Your task to perform on an android device: Clear the shopping cart on target.com. Search for razer naga on target.com, select the first entry, add it to the cart, then select checkout. Image 0: 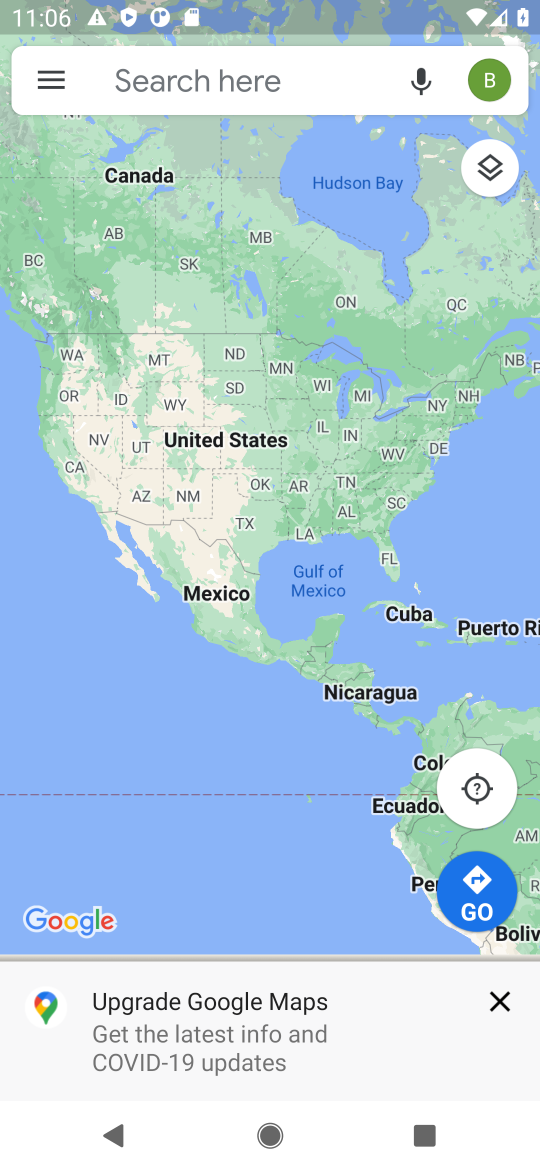
Step 0: press home button
Your task to perform on an android device: Clear the shopping cart on target.com. Search for razer naga on target.com, select the first entry, add it to the cart, then select checkout. Image 1: 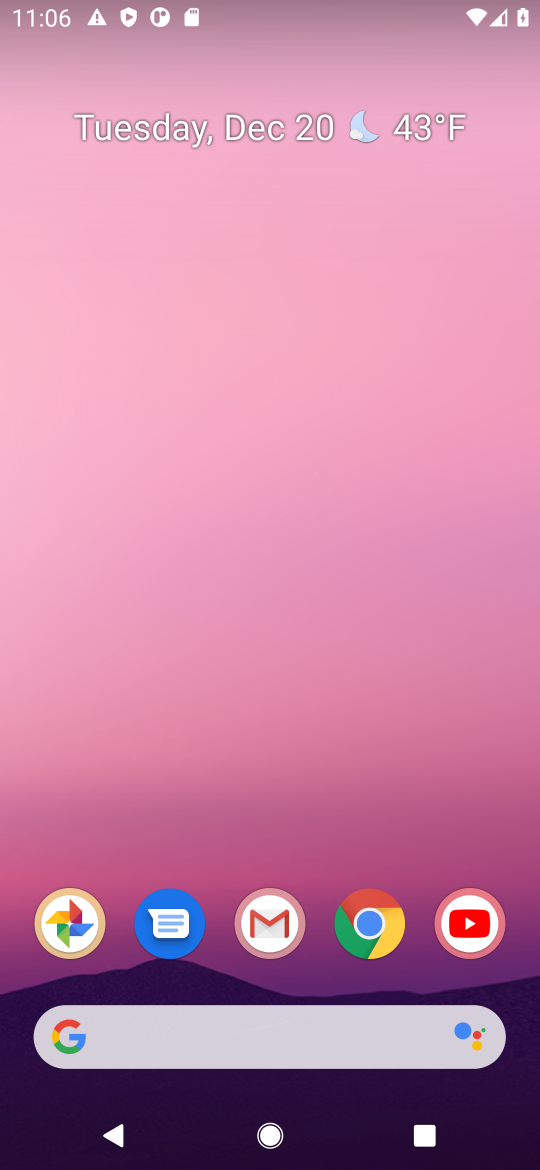
Step 1: click (380, 929)
Your task to perform on an android device: Clear the shopping cart on target.com. Search for razer naga on target.com, select the first entry, add it to the cart, then select checkout. Image 2: 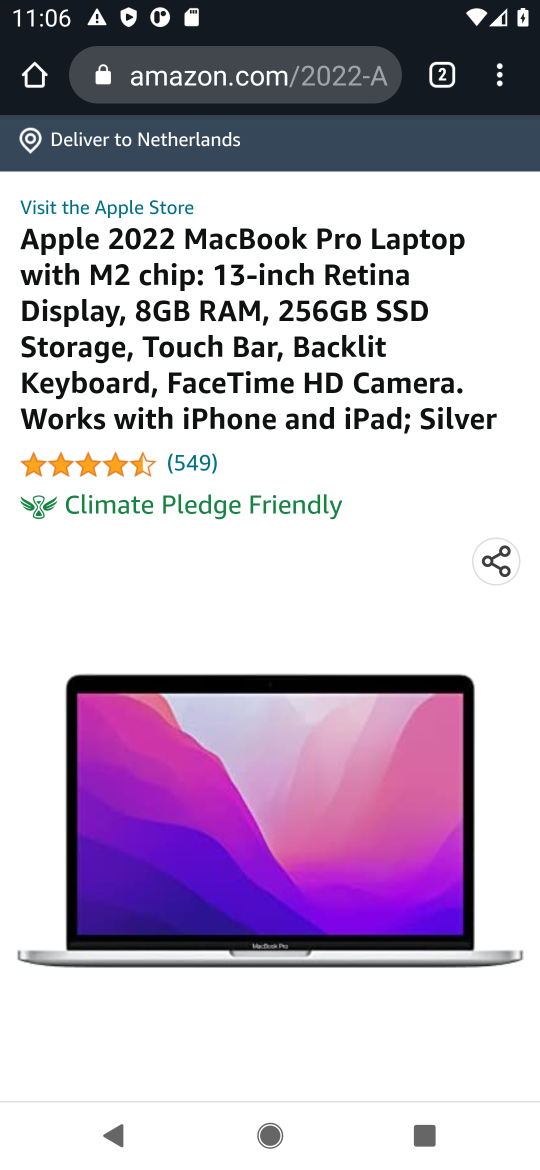
Step 2: click (334, 100)
Your task to perform on an android device: Clear the shopping cart on target.com. Search for razer naga on target.com, select the first entry, add it to the cart, then select checkout. Image 3: 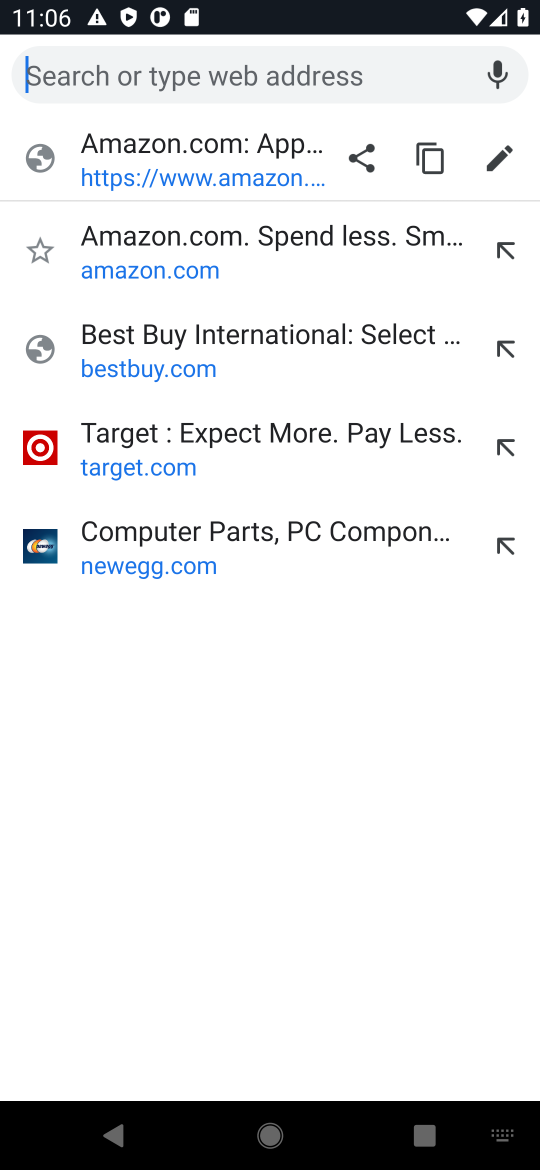
Step 3: type "target"
Your task to perform on an android device: Clear the shopping cart on target.com. Search for razer naga on target.com, select the first entry, add it to the cart, then select checkout. Image 4: 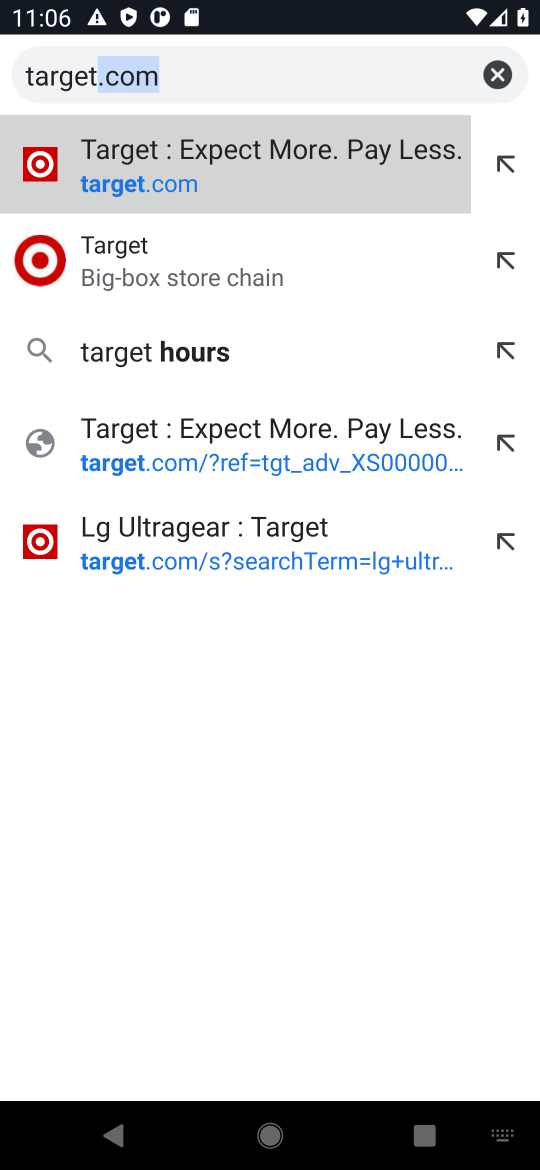
Step 4: click (159, 198)
Your task to perform on an android device: Clear the shopping cart on target.com. Search for razer naga on target.com, select the first entry, add it to the cart, then select checkout. Image 5: 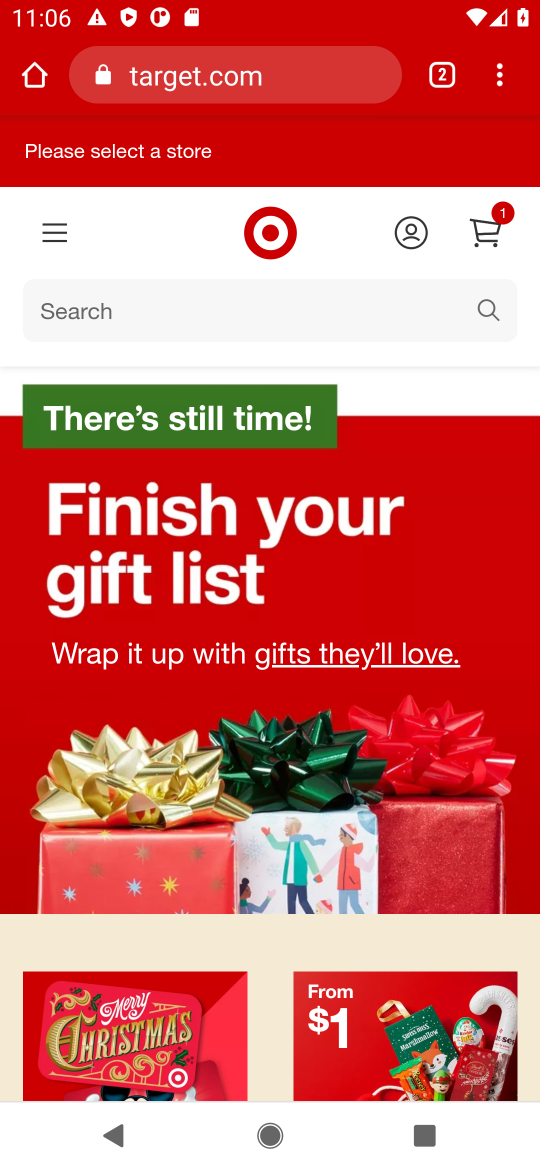
Step 5: click (223, 305)
Your task to perform on an android device: Clear the shopping cart on target.com. Search for razer naga on target.com, select the first entry, add it to the cart, then select checkout. Image 6: 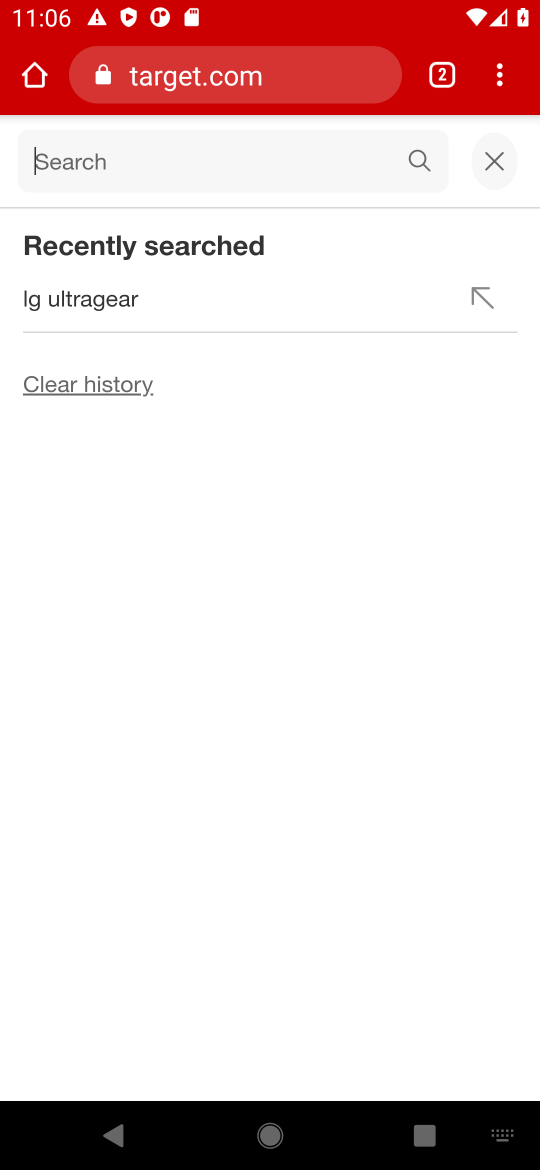
Step 6: type "razer naga"
Your task to perform on an android device: Clear the shopping cart on target.com. Search for razer naga on target.com, select the first entry, add it to the cart, then select checkout. Image 7: 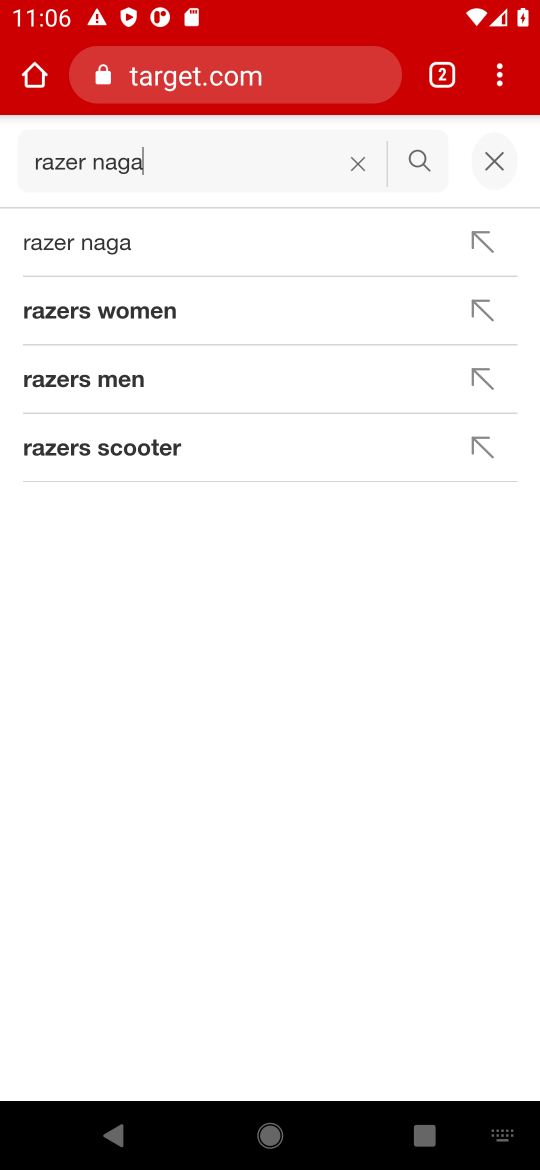
Step 7: click (257, 249)
Your task to perform on an android device: Clear the shopping cart on target.com. Search for razer naga on target.com, select the first entry, add it to the cart, then select checkout. Image 8: 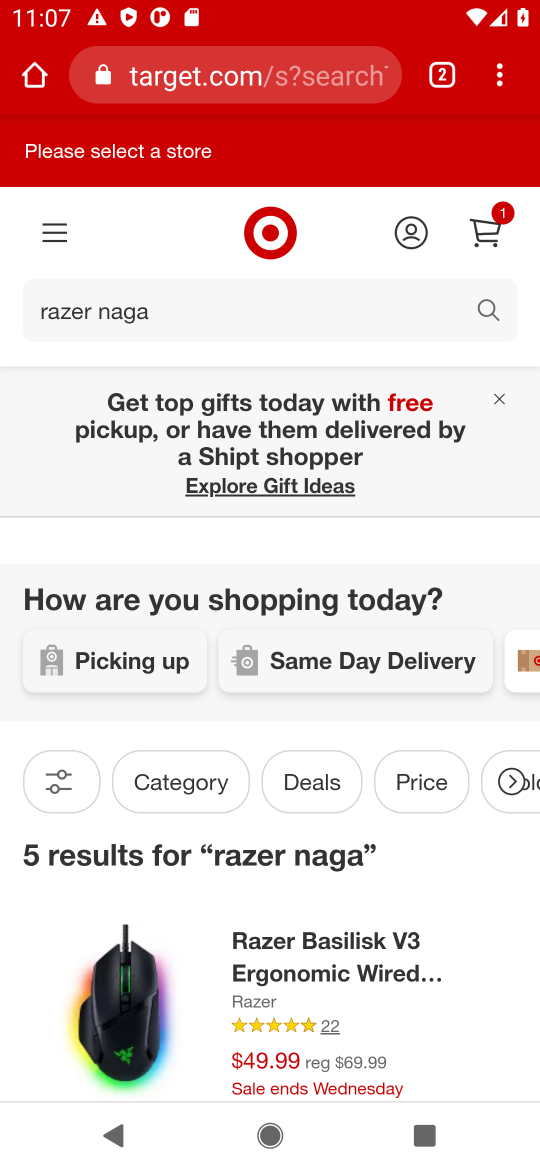
Step 8: click (360, 956)
Your task to perform on an android device: Clear the shopping cart on target.com. Search for razer naga on target.com, select the first entry, add it to the cart, then select checkout. Image 9: 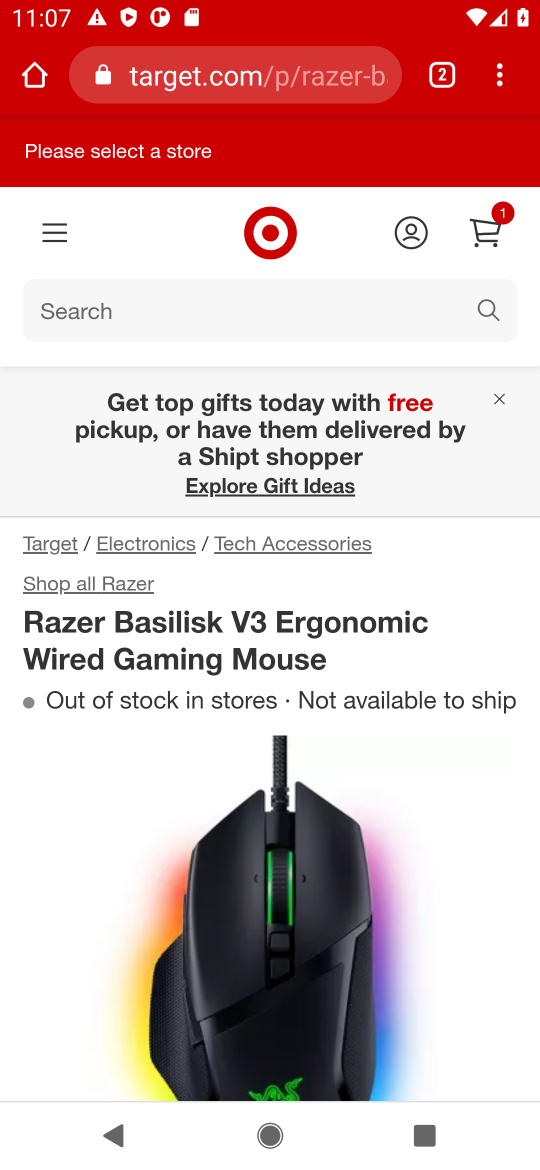
Step 9: drag from (398, 1036) to (367, 557)
Your task to perform on an android device: Clear the shopping cart on target.com. Search for razer naga on target.com, select the first entry, add it to the cart, then select checkout. Image 10: 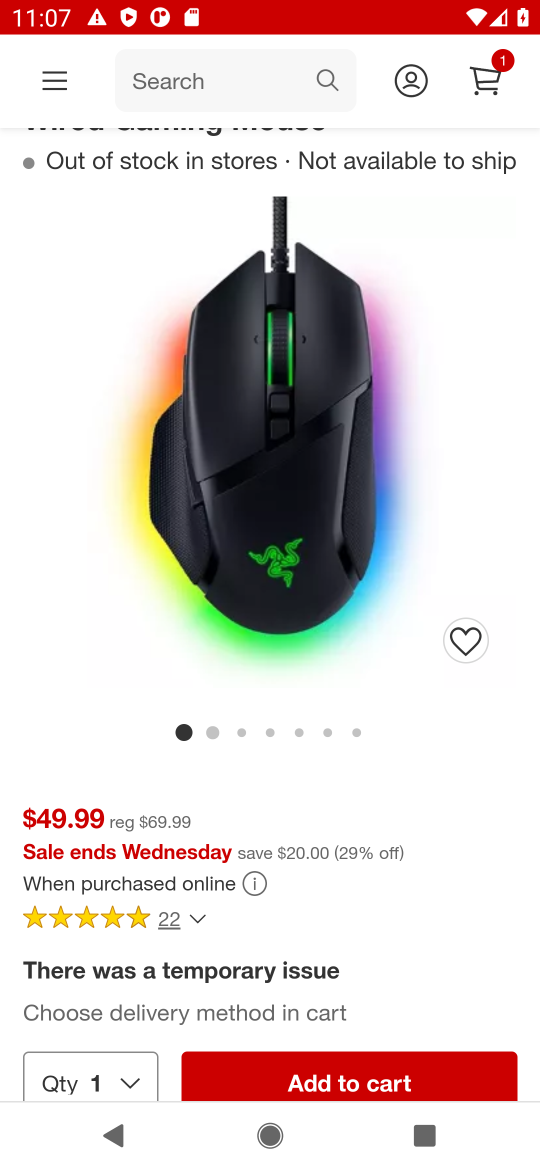
Step 10: click (454, 1052)
Your task to perform on an android device: Clear the shopping cart on target.com. Search for razer naga on target.com, select the first entry, add it to the cart, then select checkout. Image 11: 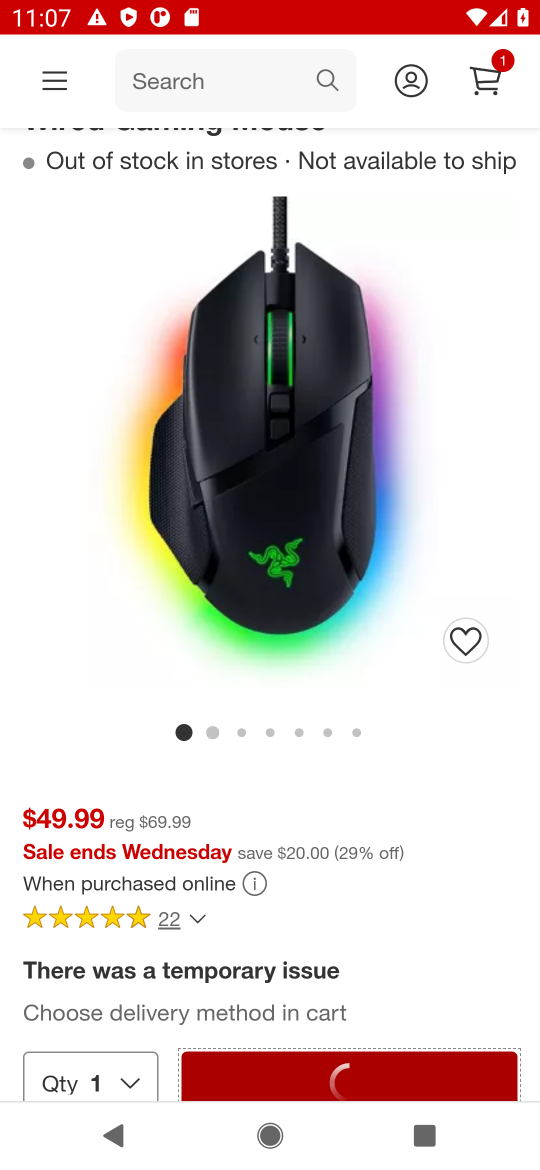
Step 11: task complete